Your task to perform on an android device: Show me the alarms in the clock app Image 0: 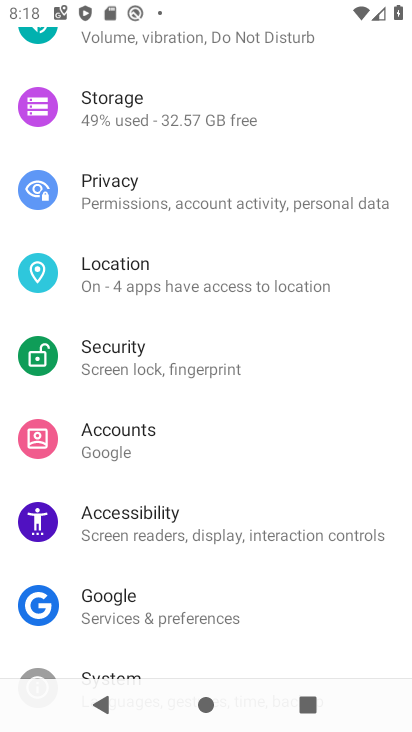
Step 0: press home button
Your task to perform on an android device: Show me the alarms in the clock app Image 1: 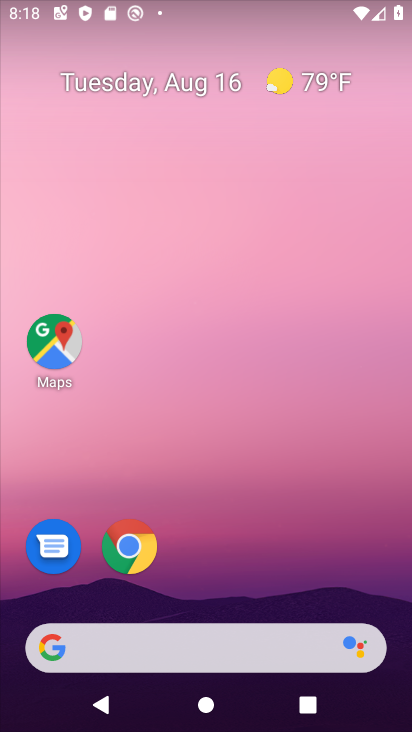
Step 1: drag from (188, 581) to (209, 119)
Your task to perform on an android device: Show me the alarms in the clock app Image 2: 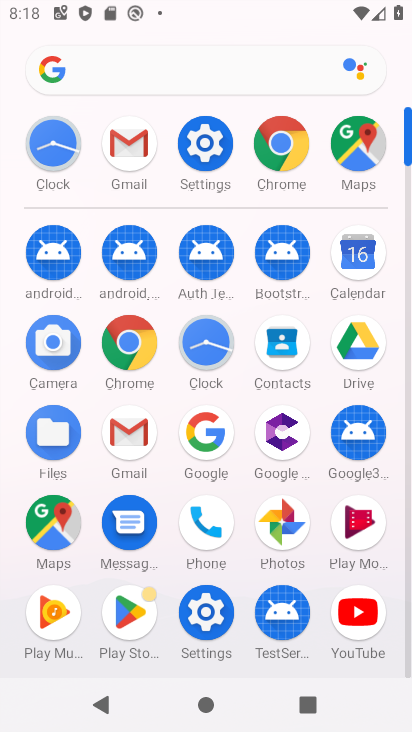
Step 2: click (57, 145)
Your task to perform on an android device: Show me the alarms in the clock app Image 3: 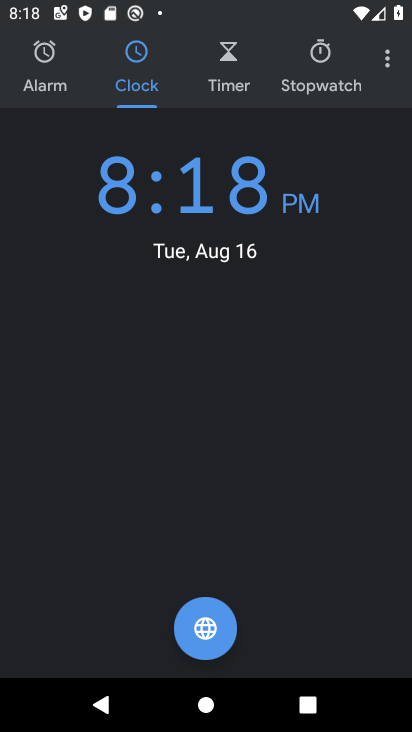
Step 3: click (47, 62)
Your task to perform on an android device: Show me the alarms in the clock app Image 4: 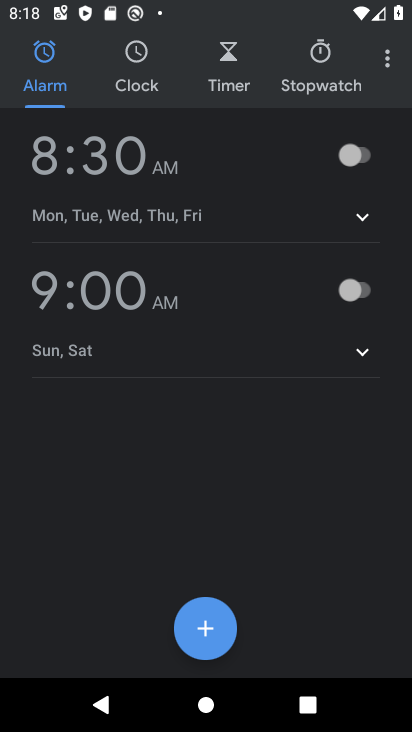
Step 4: task complete